Your task to perform on an android device: turn off location Image 0: 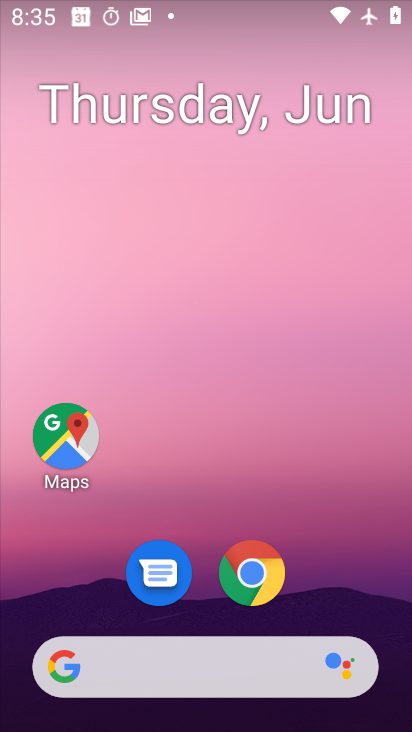
Step 0: drag from (327, 539) to (275, 266)
Your task to perform on an android device: turn off location Image 1: 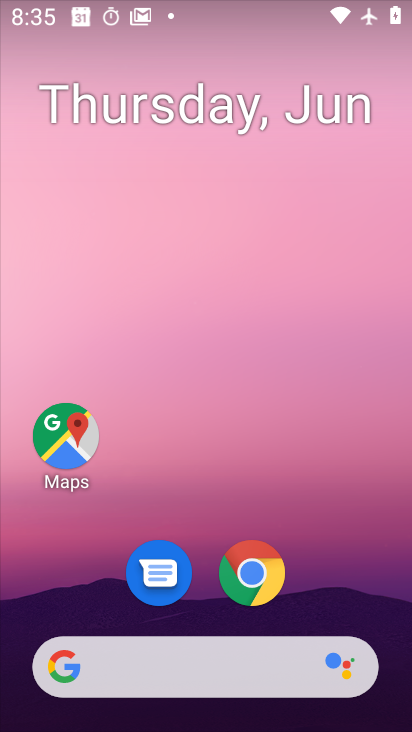
Step 1: drag from (256, 644) to (258, 266)
Your task to perform on an android device: turn off location Image 2: 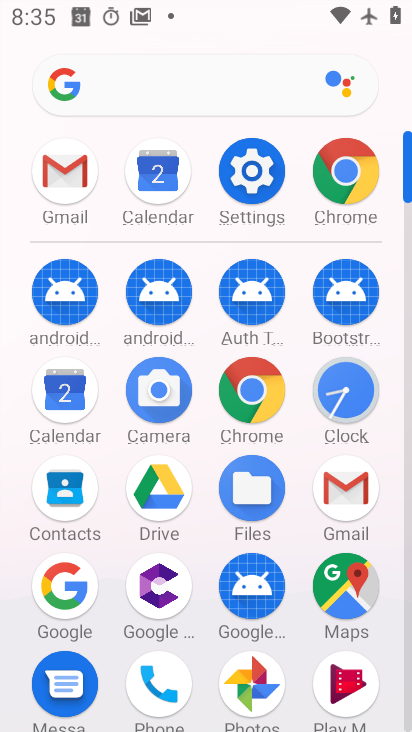
Step 2: click (248, 177)
Your task to perform on an android device: turn off location Image 3: 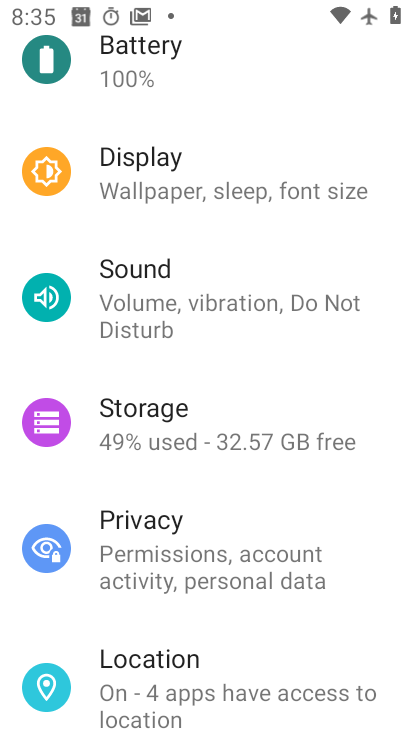
Step 3: click (190, 675)
Your task to perform on an android device: turn off location Image 4: 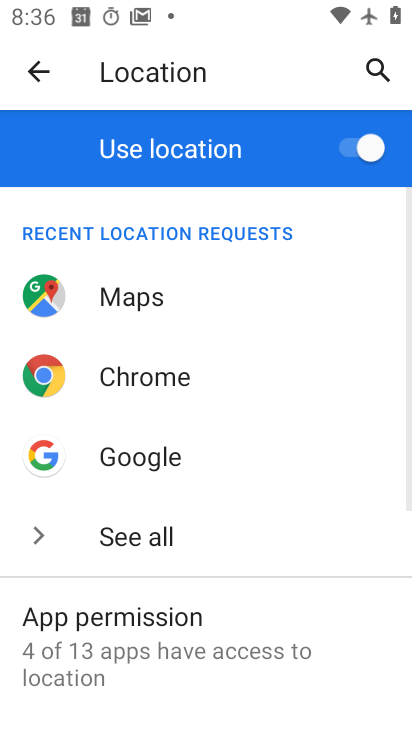
Step 4: click (357, 149)
Your task to perform on an android device: turn off location Image 5: 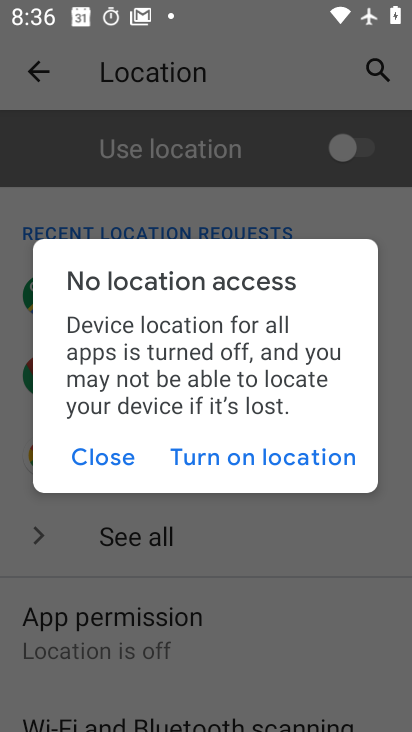
Step 5: click (114, 447)
Your task to perform on an android device: turn off location Image 6: 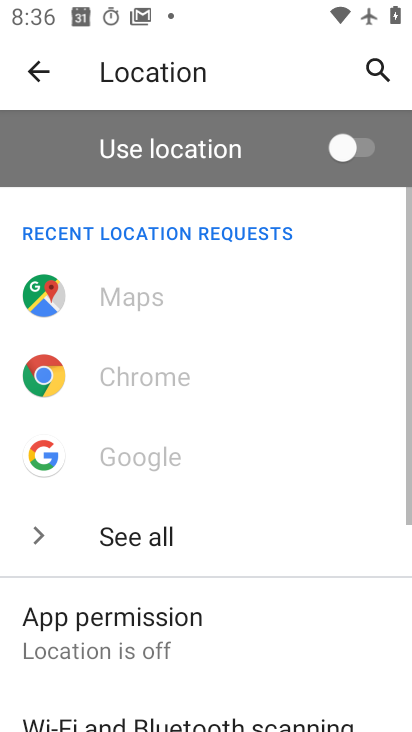
Step 6: task complete